Your task to perform on an android device: Open Google Maps Image 0: 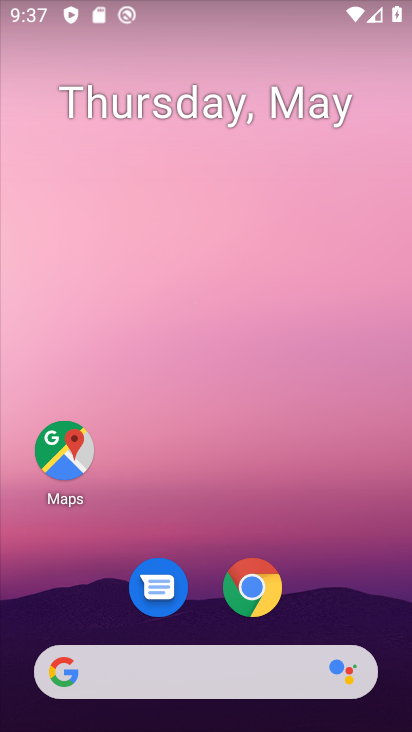
Step 0: drag from (391, 635) to (289, 78)
Your task to perform on an android device: Open Google Maps Image 1: 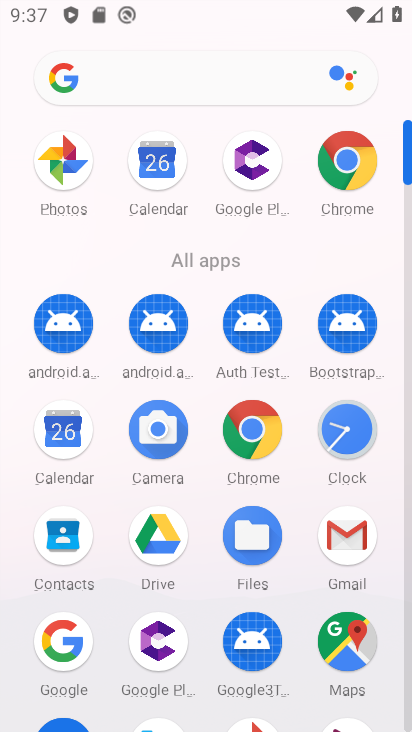
Step 1: click (369, 651)
Your task to perform on an android device: Open Google Maps Image 2: 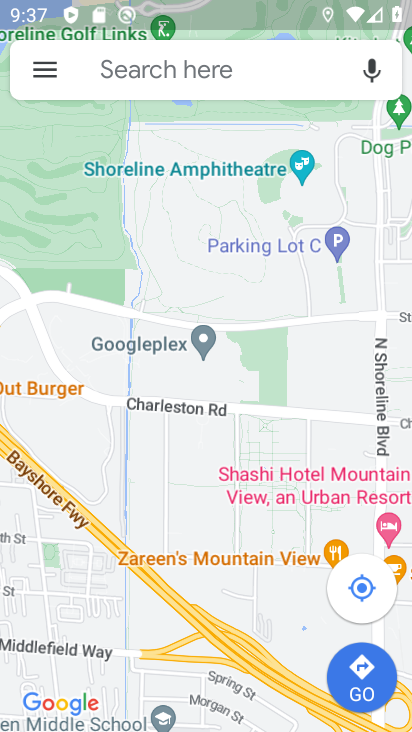
Step 2: task complete